Your task to perform on an android device: Go to Android settings Image 0: 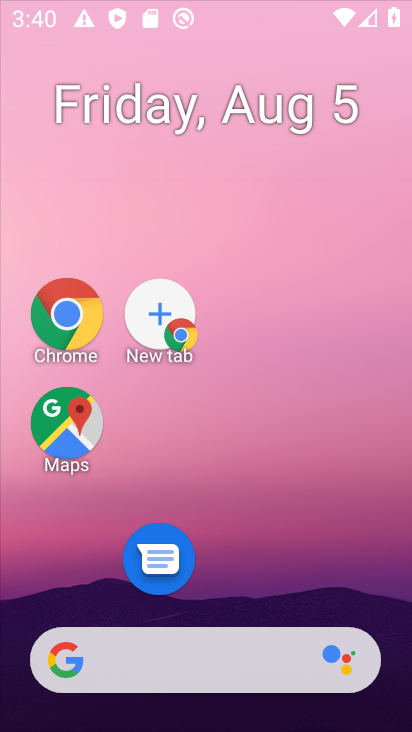
Step 0: drag from (185, 541) to (86, 0)
Your task to perform on an android device: Go to Android settings Image 1: 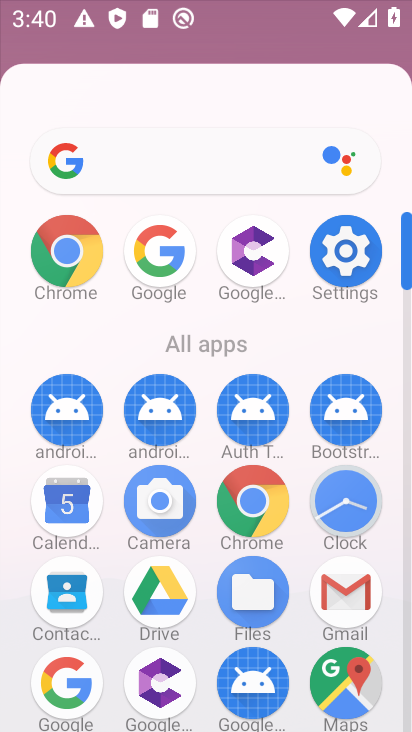
Step 1: drag from (143, 377) to (148, 133)
Your task to perform on an android device: Go to Android settings Image 2: 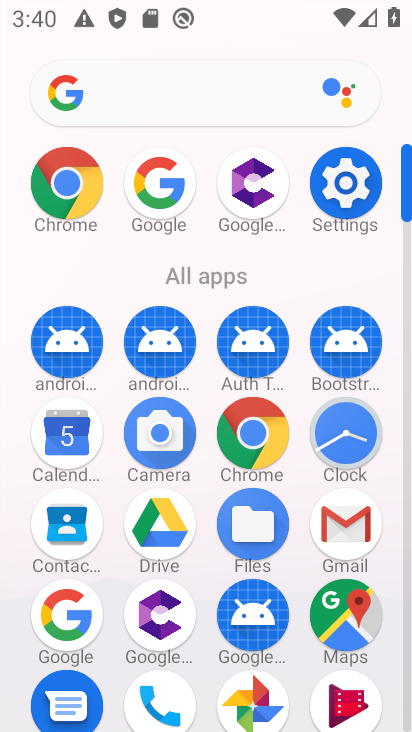
Step 2: drag from (213, 440) to (231, 153)
Your task to perform on an android device: Go to Android settings Image 3: 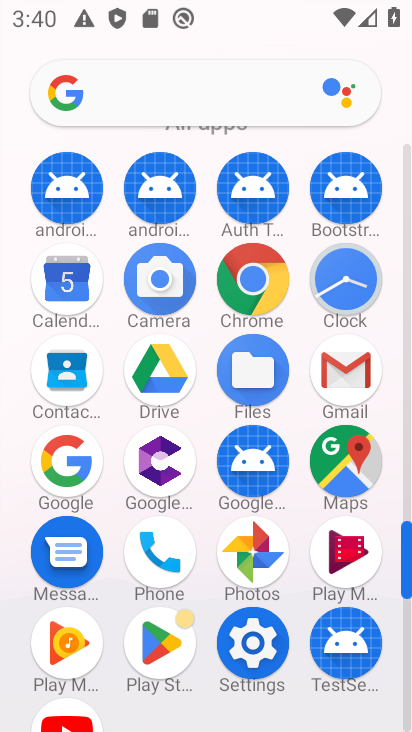
Step 3: click (259, 632)
Your task to perform on an android device: Go to Android settings Image 4: 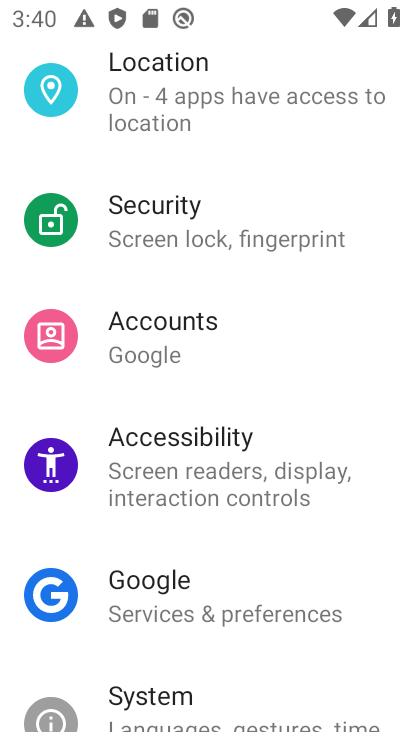
Step 4: drag from (188, 568) to (166, 224)
Your task to perform on an android device: Go to Android settings Image 5: 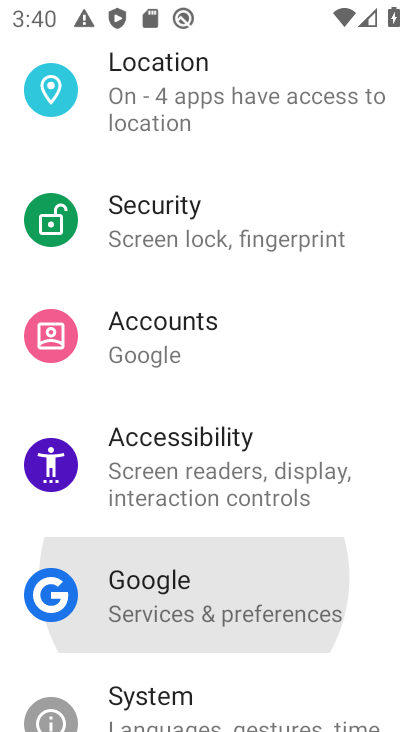
Step 5: drag from (216, 492) to (174, 155)
Your task to perform on an android device: Go to Android settings Image 6: 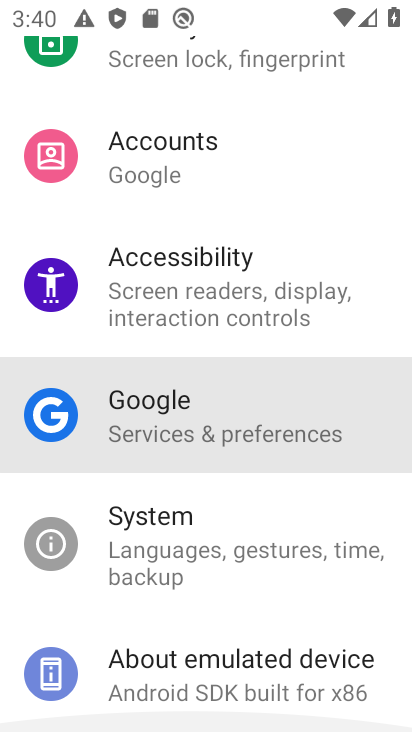
Step 6: drag from (201, 523) to (155, 234)
Your task to perform on an android device: Go to Android settings Image 7: 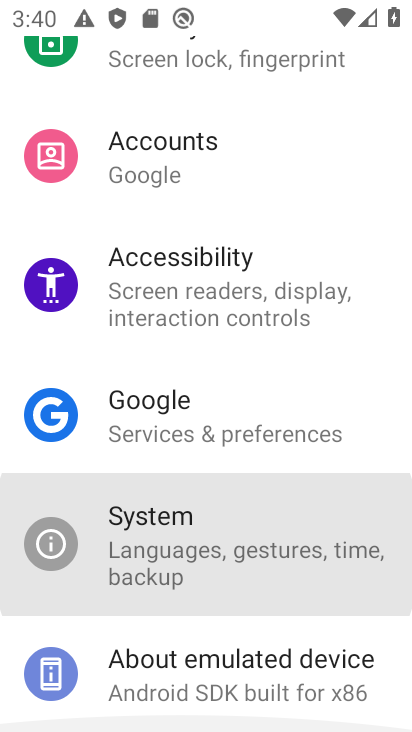
Step 7: drag from (195, 599) to (180, 348)
Your task to perform on an android device: Go to Android settings Image 8: 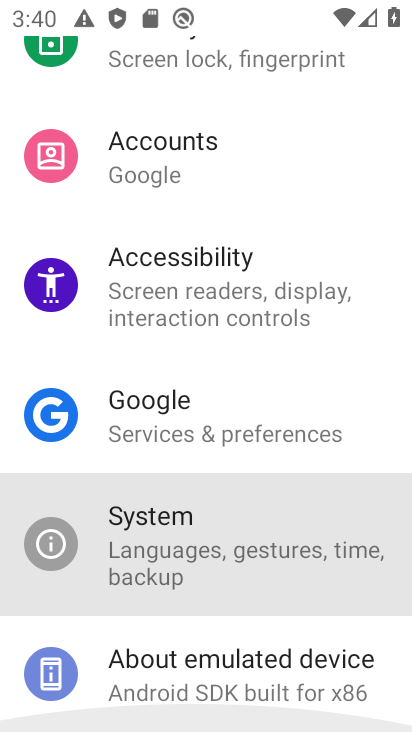
Step 8: drag from (229, 513) to (206, 109)
Your task to perform on an android device: Go to Android settings Image 9: 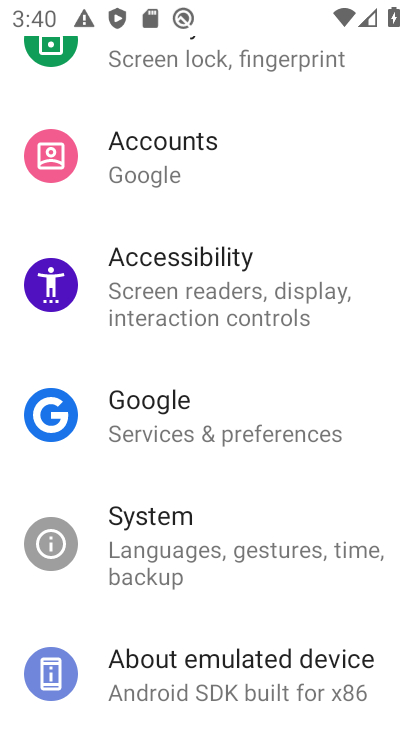
Step 9: drag from (178, 517) to (142, 314)
Your task to perform on an android device: Go to Android settings Image 10: 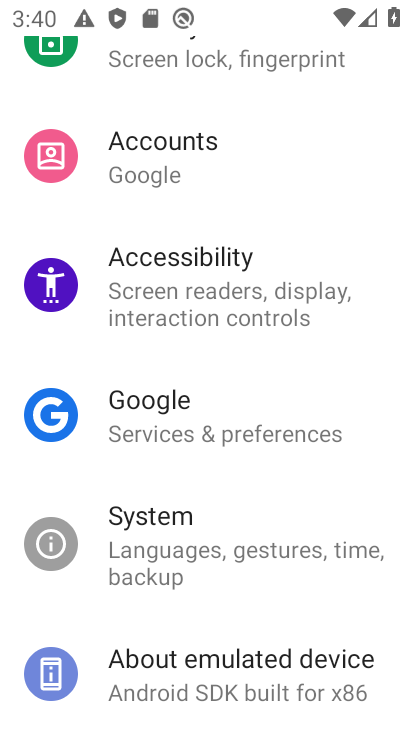
Step 10: drag from (178, 548) to (144, 282)
Your task to perform on an android device: Go to Android settings Image 11: 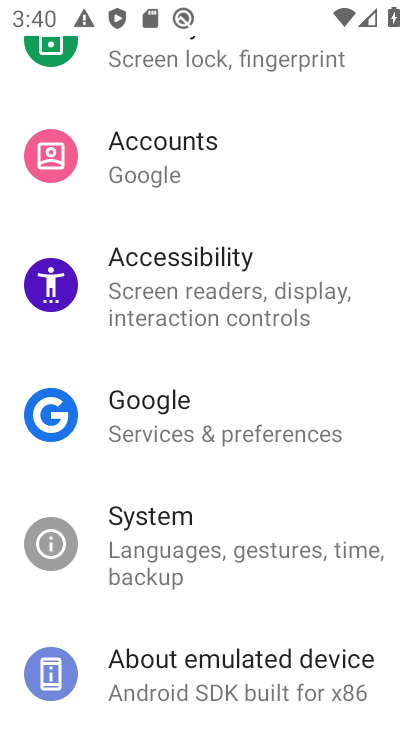
Step 11: drag from (146, 474) to (118, 239)
Your task to perform on an android device: Go to Android settings Image 12: 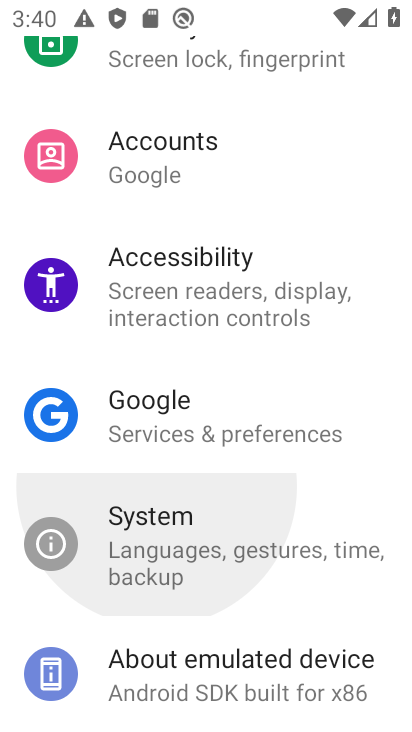
Step 12: drag from (186, 593) to (174, 341)
Your task to perform on an android device: Go to Android settings Image 13: 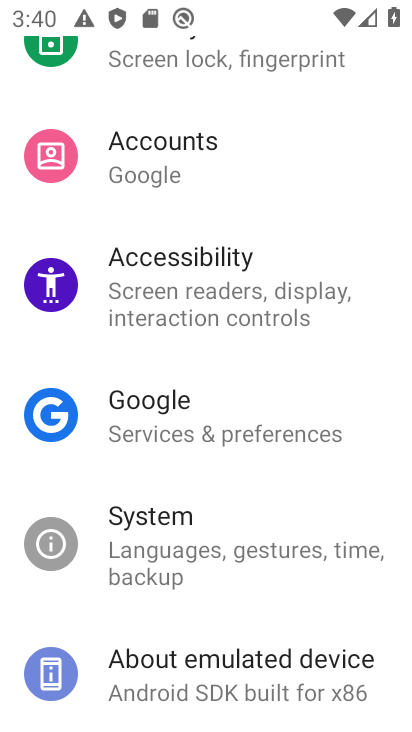
Step 13: click (218, 685)
Your task to perform on an android device: Go to Android settings Image 14: 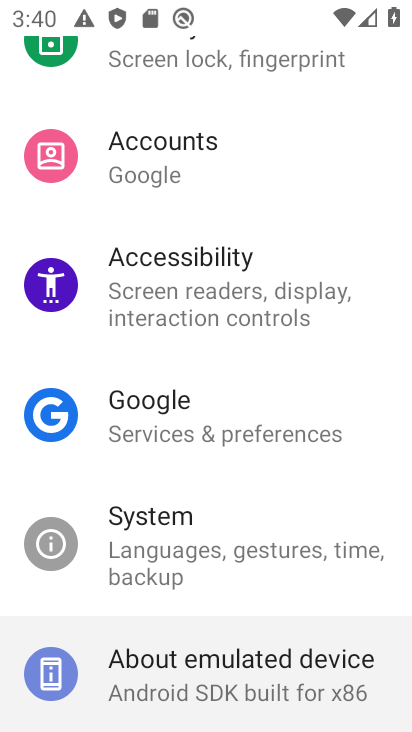
Step 14: click (219, 683)
Your task to perform on an android device: Go to Android settings Image 15: 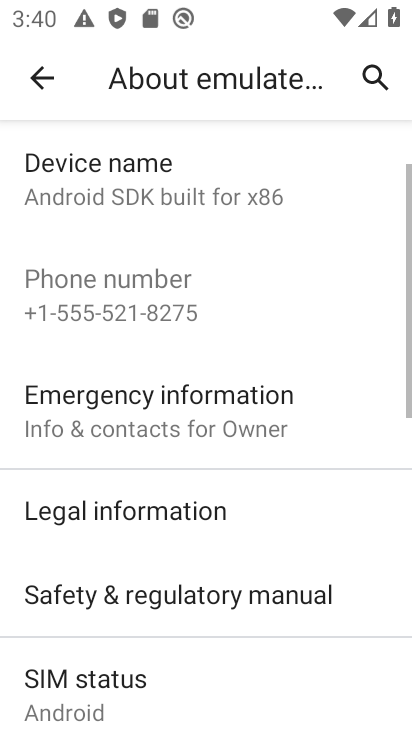
Step 15: drag from (176, 540) to (133, 207)
Your task to perform on an android device: Go to Android settings Image 16: 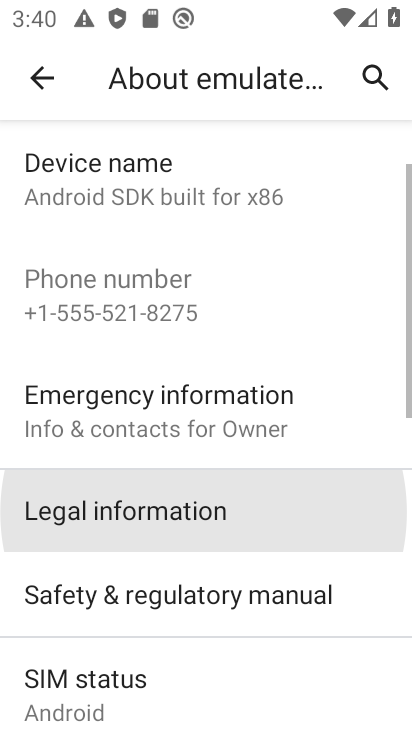
Step 16: drag from (89, 483) to (79, 185)
Your task to perform on an android device: Go to Android settings Image 17: 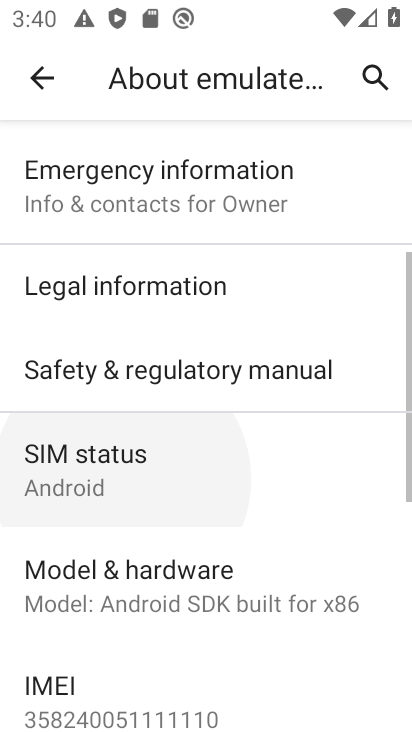
Step 17: drag from (117, 356) to (117, 110)
Your task to perform on an android device: Go to Android settings Image 18: 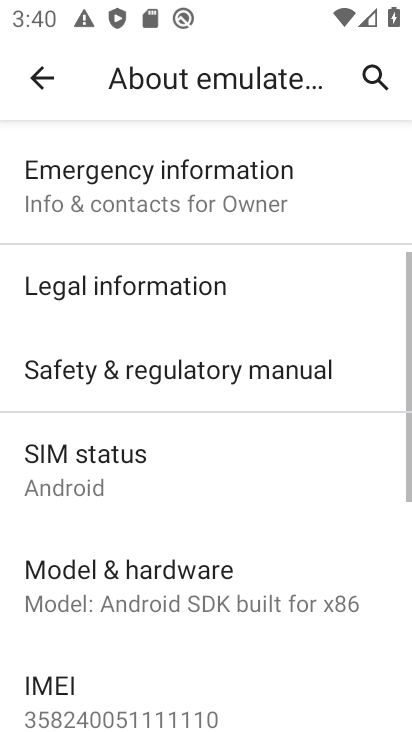
Step 18: drag from (119, 104) to (134, 246)
Your task to perform on an android device: Go to Android settings Image 19: 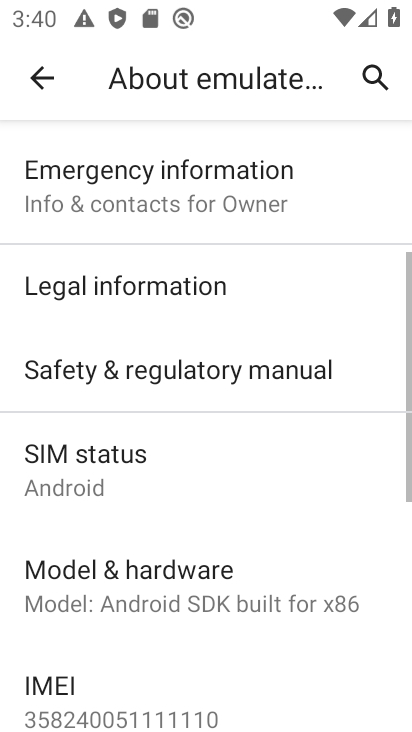
Step 19: drag from (115, 278) to (95, 131)
Your task to perform on an android device: Go to Android settings Image 20: 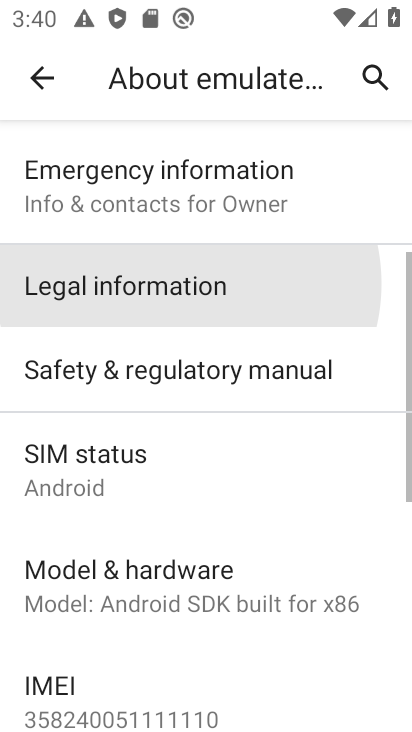
Step 20: click (91, 254)
Your task to perform on an android device: Go to Android settings Image 21: 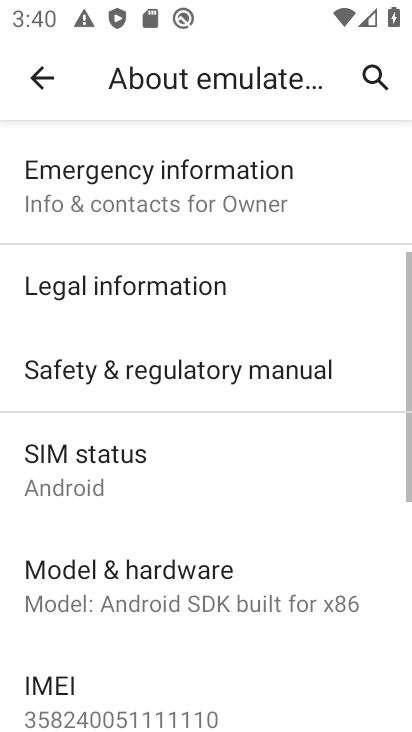
Step 21: task complete